Your task to perform on an android device: Open Google Chrome and click the shortcut for Amazon.com Image 0: 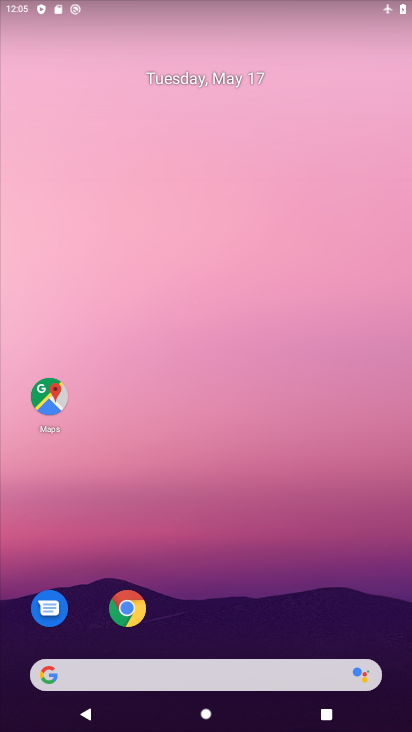
Step 0: click (119, 609)
Your task to perform on an android device: Open Google Chrome and click the shortcut for Amazon.com Image 1: 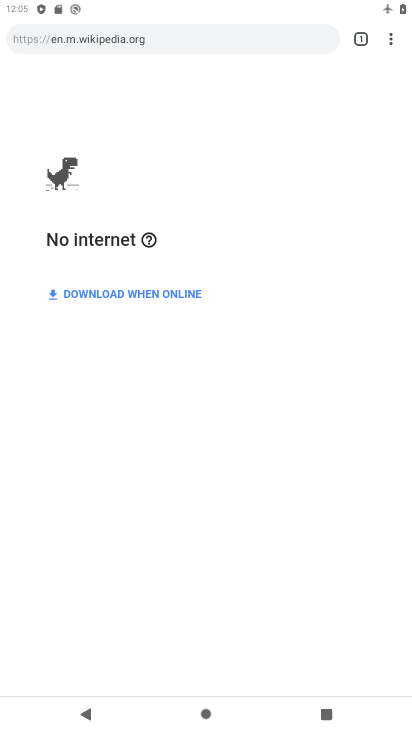
Step 1: press back button
Your task to perform on an android device: Open Google Chrome and click the shortcut for Amazon.com Image 2: 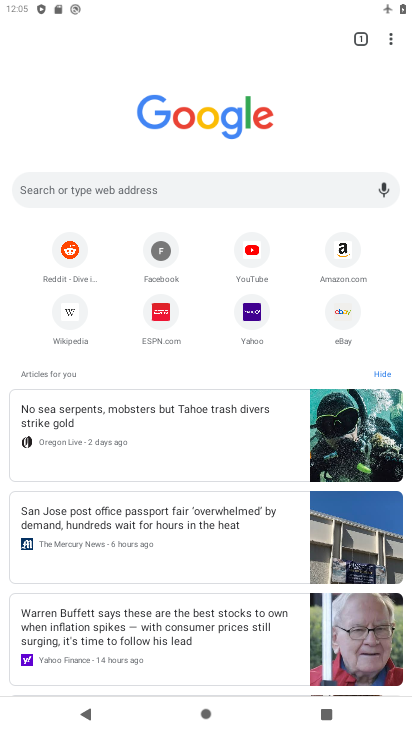
Step 2: click (344, 255)
Your task to perform on an android device: Open Google Chrome and click the shortcut for Amazon.com Image 3: 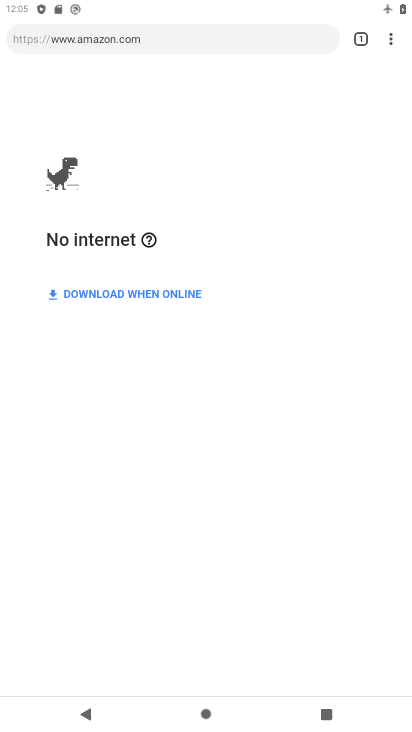
Step 3: task complete